Your task to perform on an android device: turn off picture-in-picture Image 0: 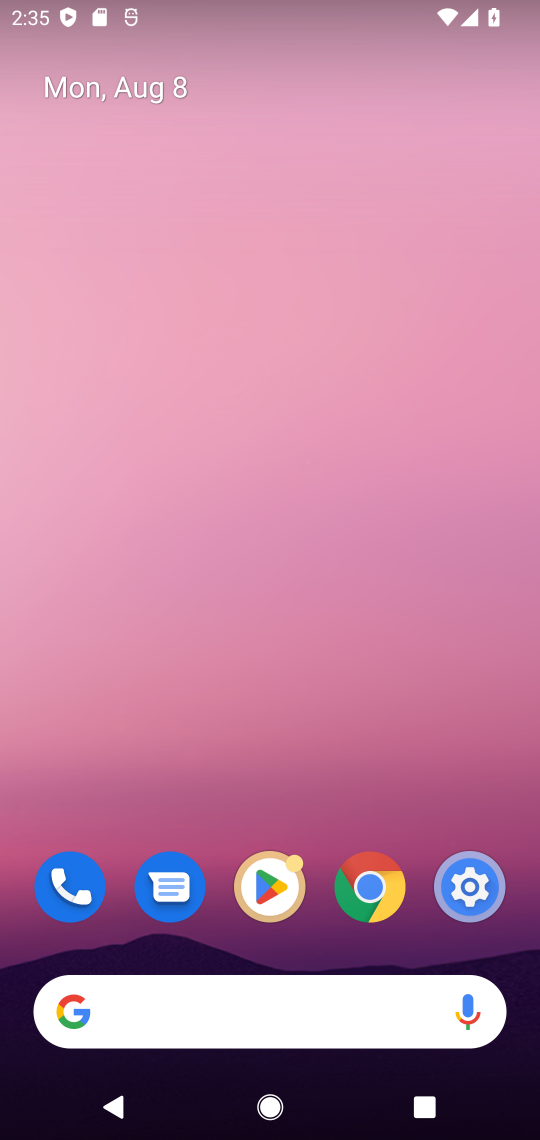
Step 0: click (378, 871)
Your task to perform on an android device: turn off picture-in-picture Image 1: 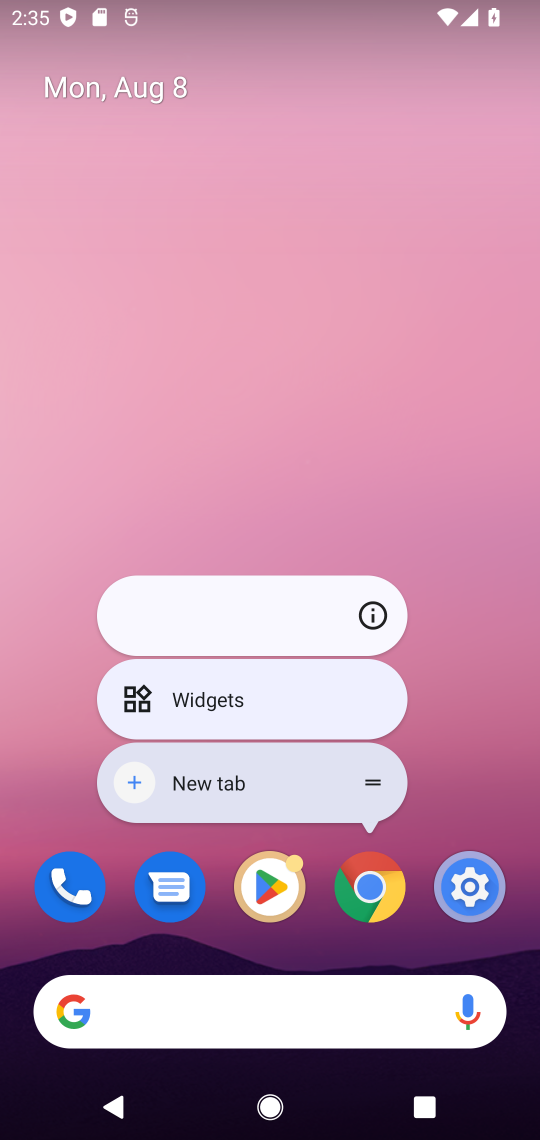
Step 1: click (360, 614)
Your task to perform on an android device: turn off picture-in-picture Image 2: 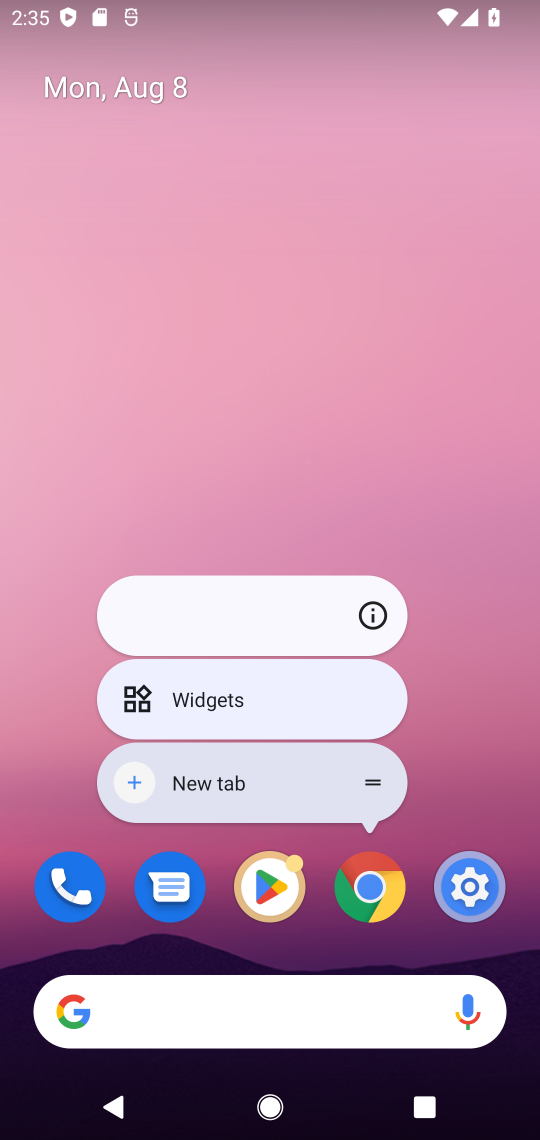
Step 2: click (373, 622)
Your task to perform on an android device: turn off picture-in-picture Image 3: 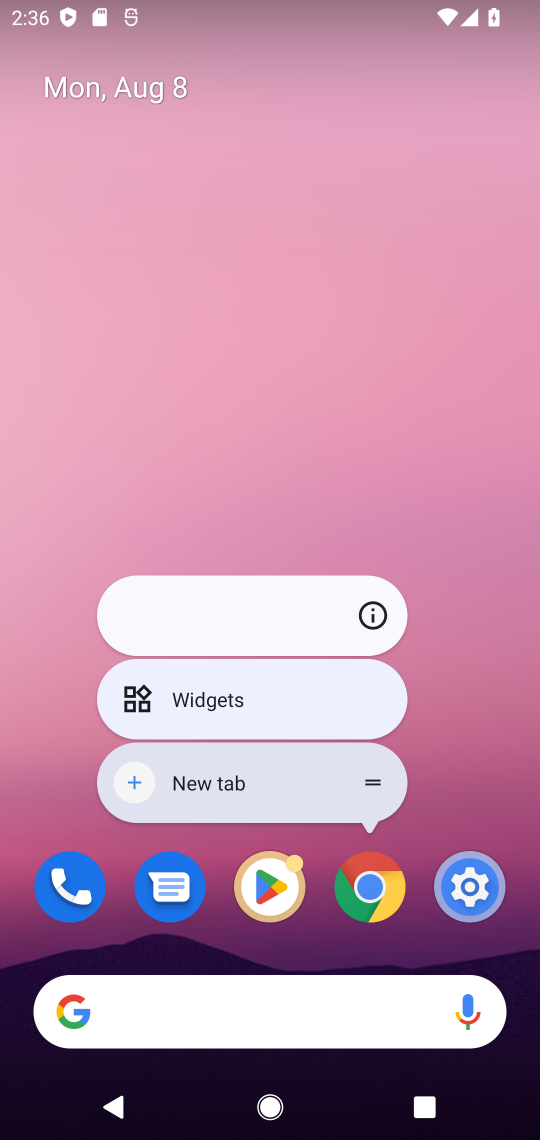
Step 3: click (376, 618)
Your task to perform on an android device: turn off picture-in-picture Image 4: 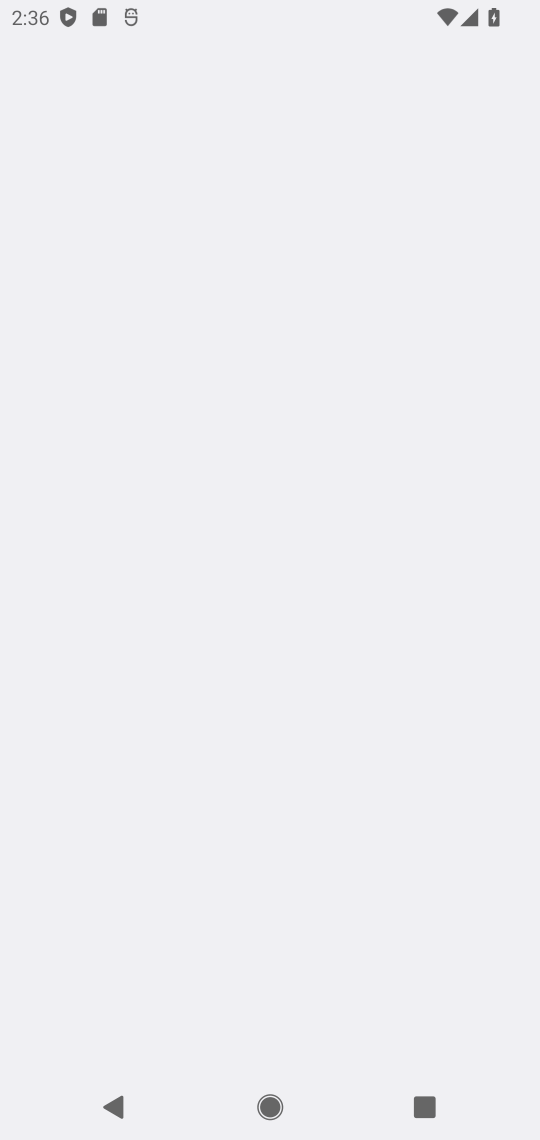
Step 4: drag from (376, 618) to (491, 618)
Your task to perform on an android device: turn off picture-in-picture Image 5: 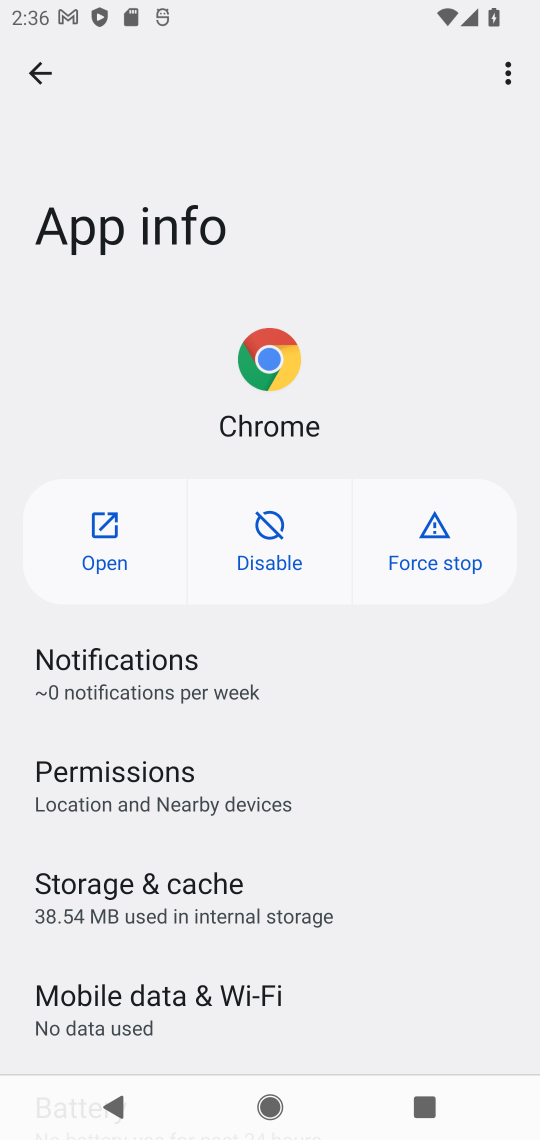
Step 5: drag from (260, 955) to (167, 383)
Your task to perform on an android device: turn off picture-in-picture Image 6: 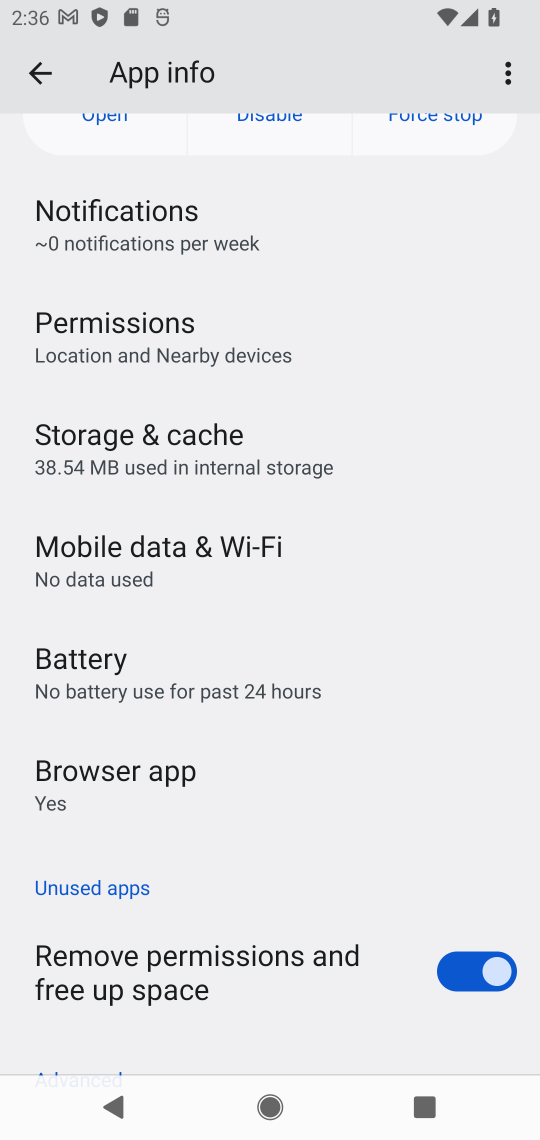
Step 6: drag from (269, 1006) to (240, 487)
Your task to perform on an android device: turn off picture-in-picture Image 7: 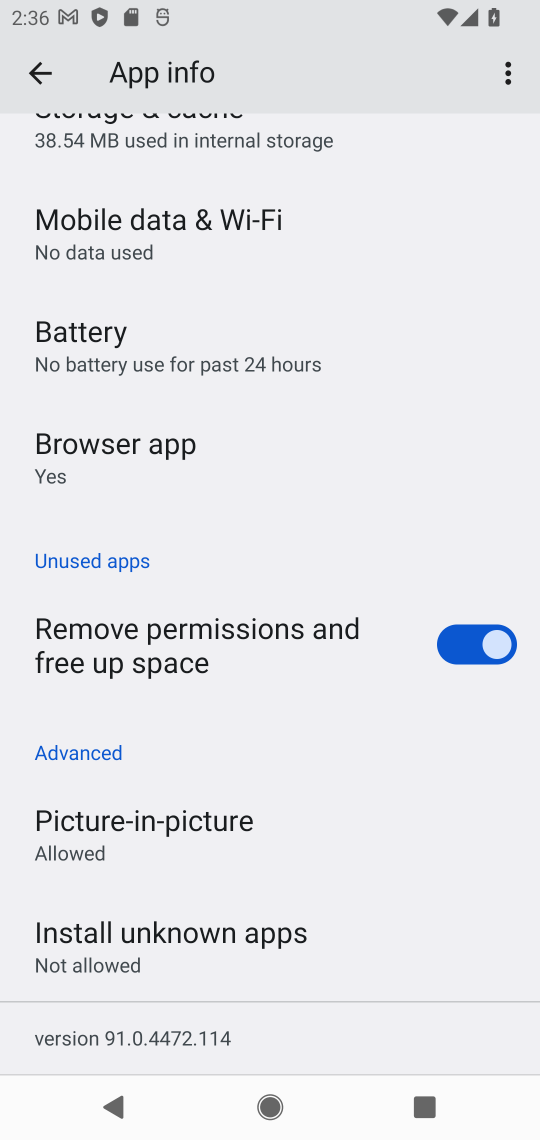
Step 7: click (129, 818)
Your task to perform on an android device: turn off picture-in-picture Image 8: 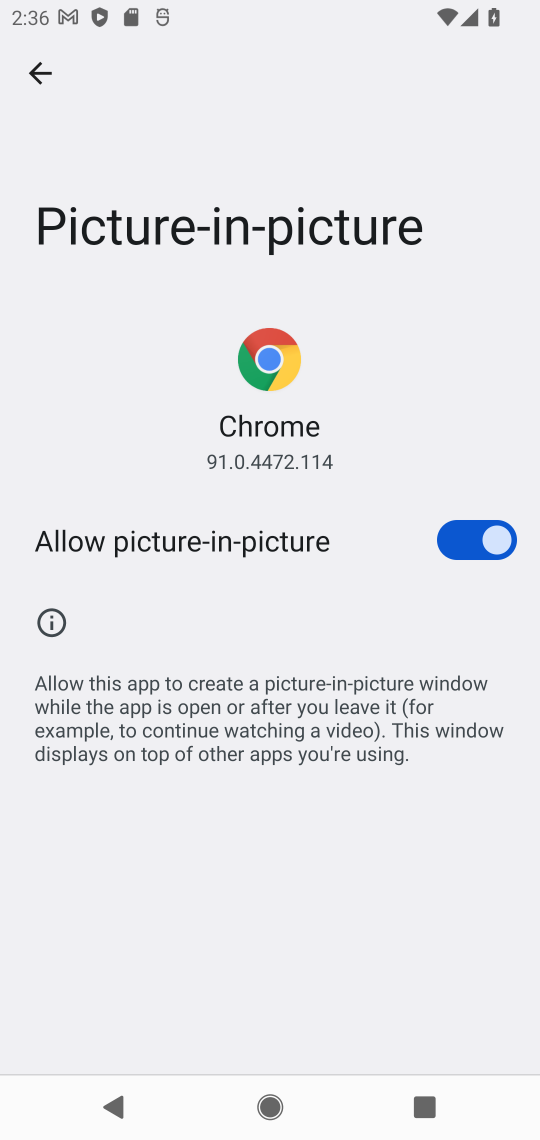
Step 8: click (461, 538)
Your task to perform on an android device: turn off picture-in-picture Image 9: 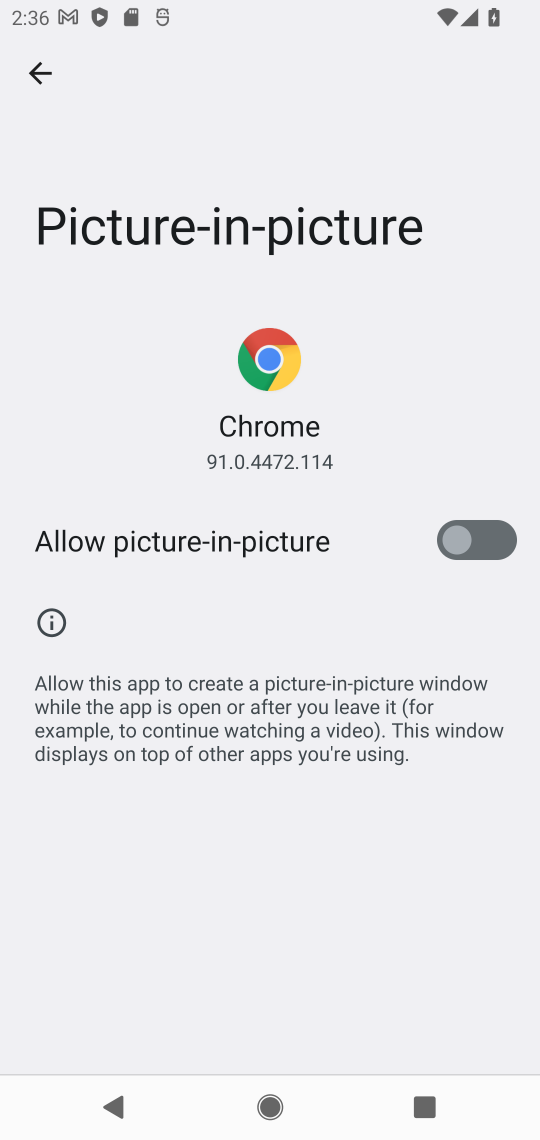
Step 9: task complete